Your task to perform on an android device: open app "Spotify: Music and Podcasts" (install if not already installed) Image 0: 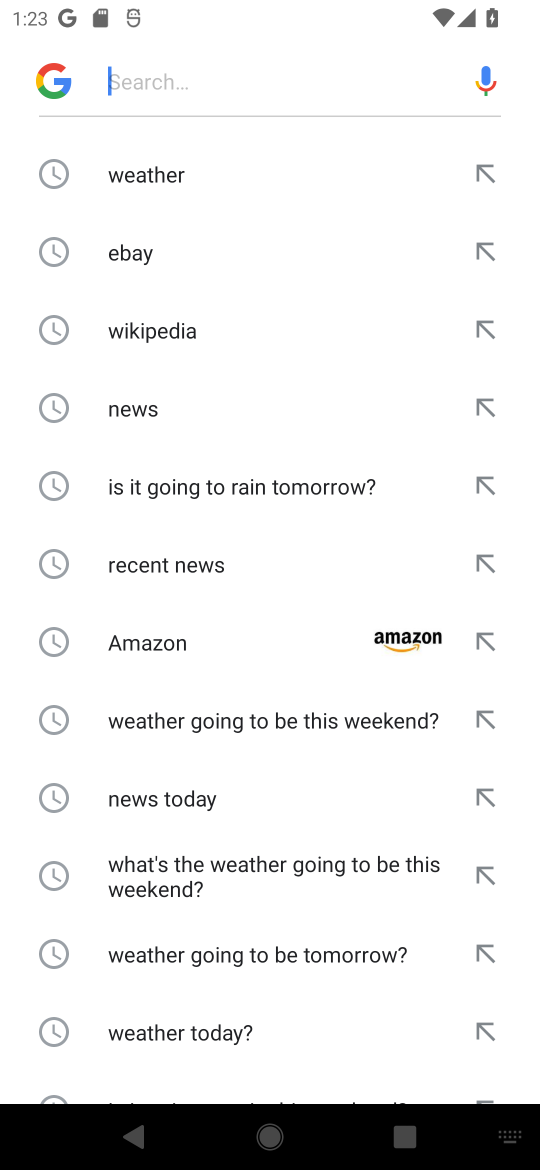
Step 0: press back button
Your task to perform on an android device: open app "Spotify: Music and Podcasts" (install if not already installed) Image 1: 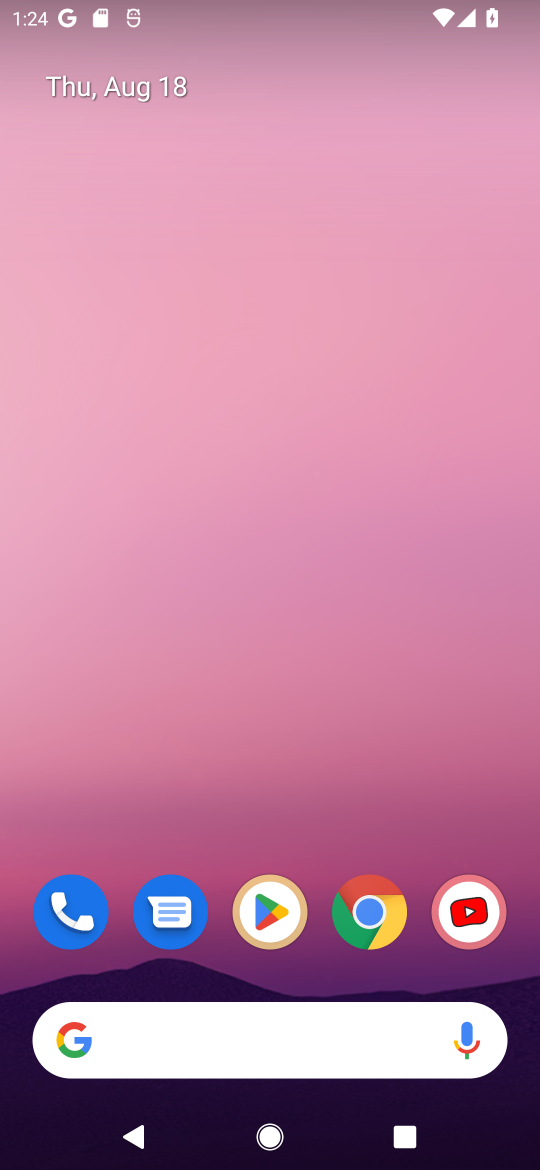
Step 1: click (273, 908)
Your task to perform on an android device: open app "Spotify: Music and Podcasts" (install if not already installed) Image 2: 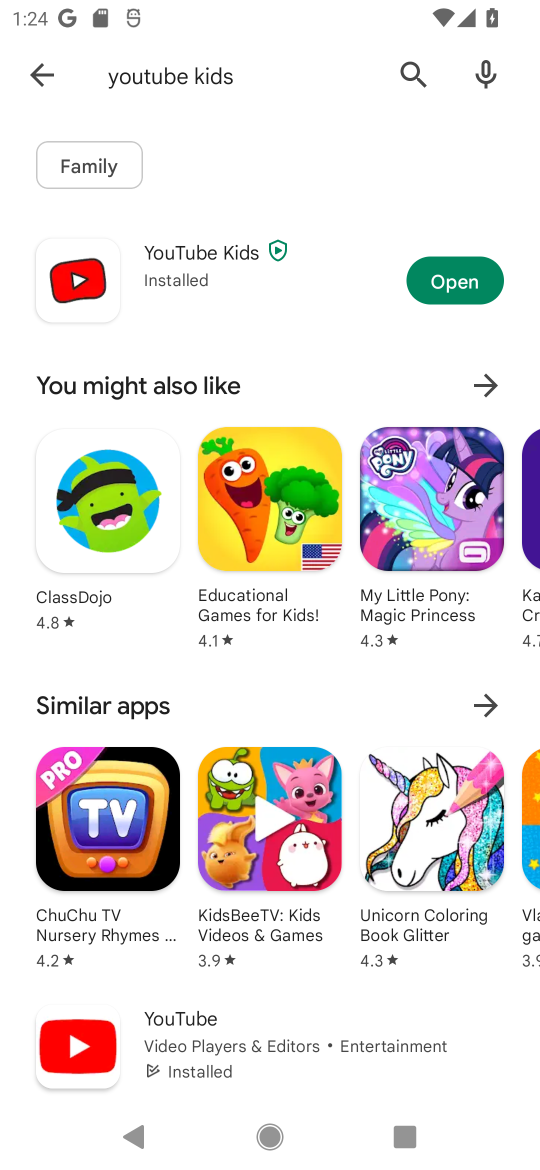
Step 2: click (411, 62)
Your task to perform on an android device: open app "Spotify: Music and Podcasts" (install if not already installed) Image 3: 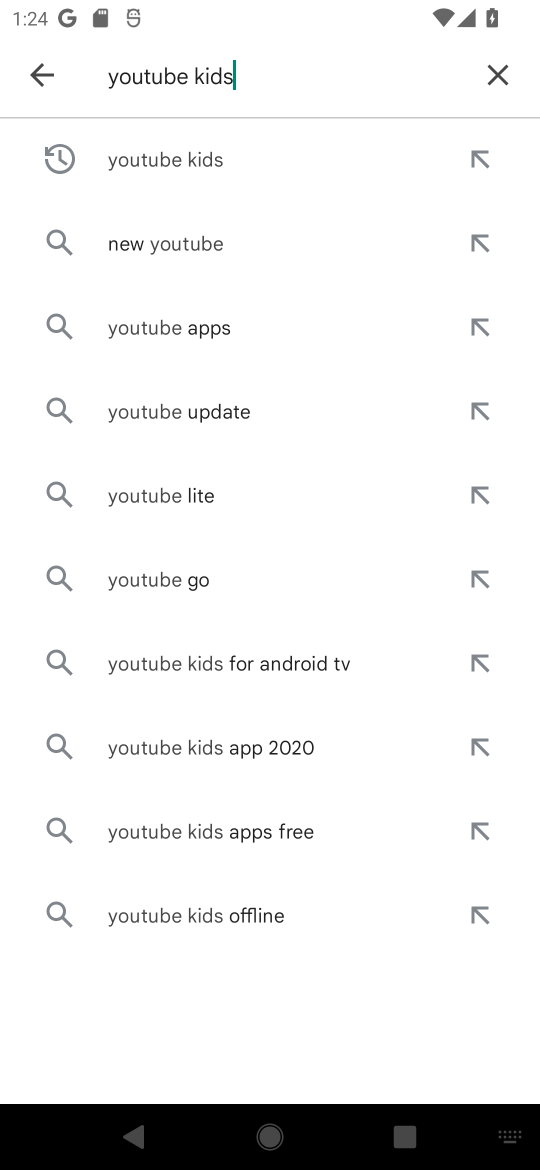
Step 3: click (496, 79)
Your task to perform on an android device: open app "Spotify: Music and Podcasts" (install if not already installed) Image 4: 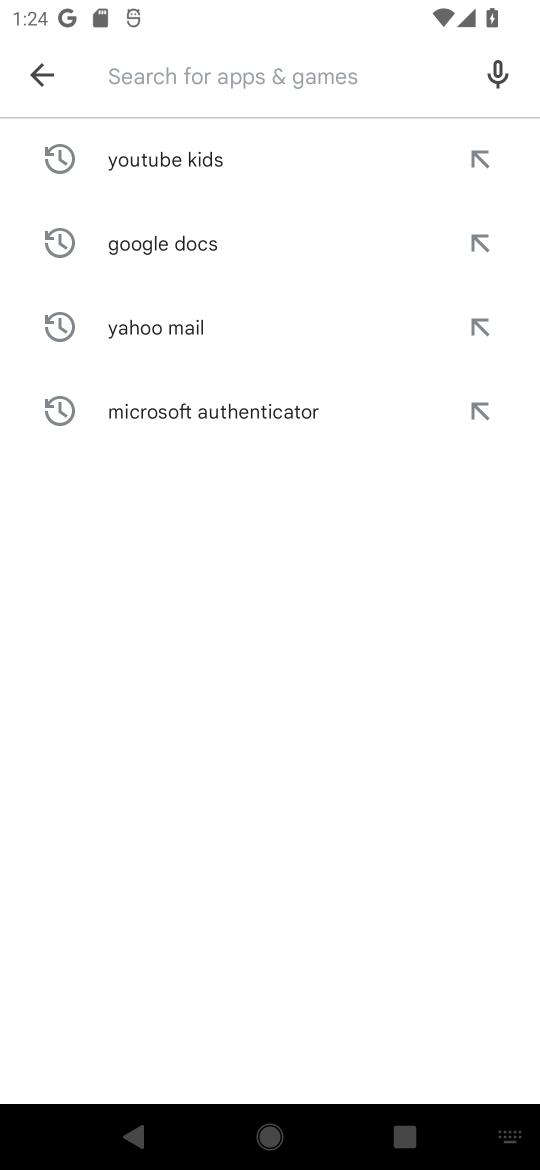
Step 4: click (284, 79)
Your task to perform on an android device: open app "Spotify: Music and Podcasts" (install if not already installed) Image 5: 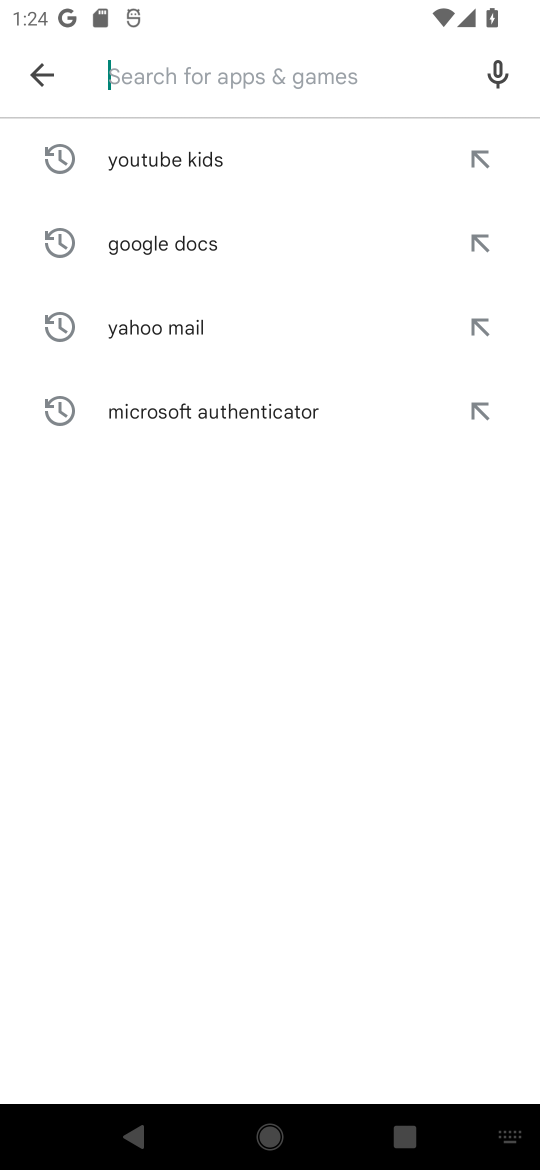
Step 5: type "spotify"
Your task to perform on an android device: open app "Spotify: Music and Podcasts" (install if not already installed) Image 6: 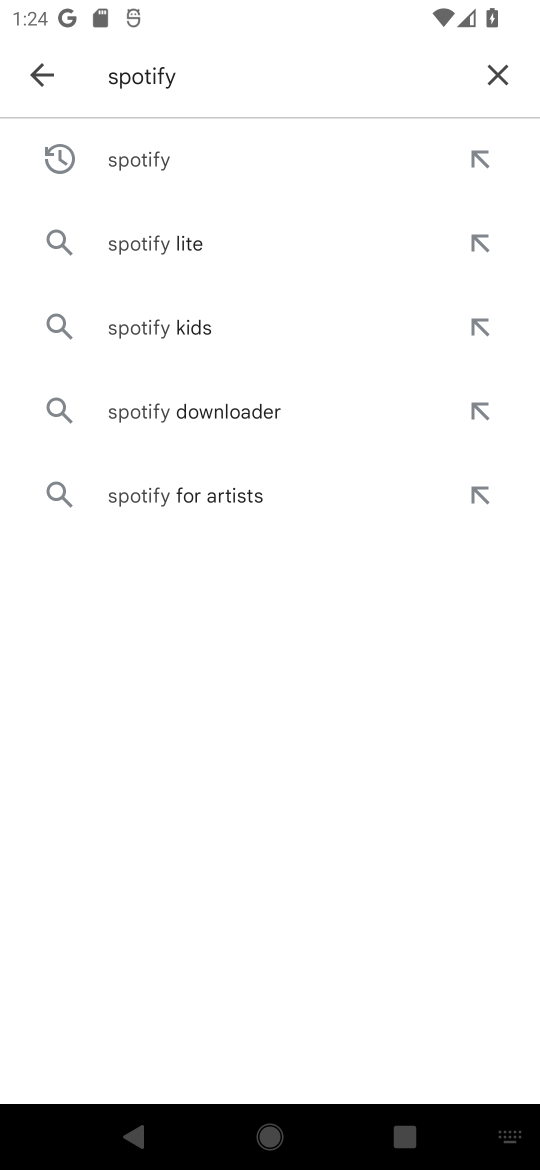
Step 6: click (165, 147)
Your task to perform on an android device: open app "Spotify: Music and Podcasts" (install if not already installed) Image 7: 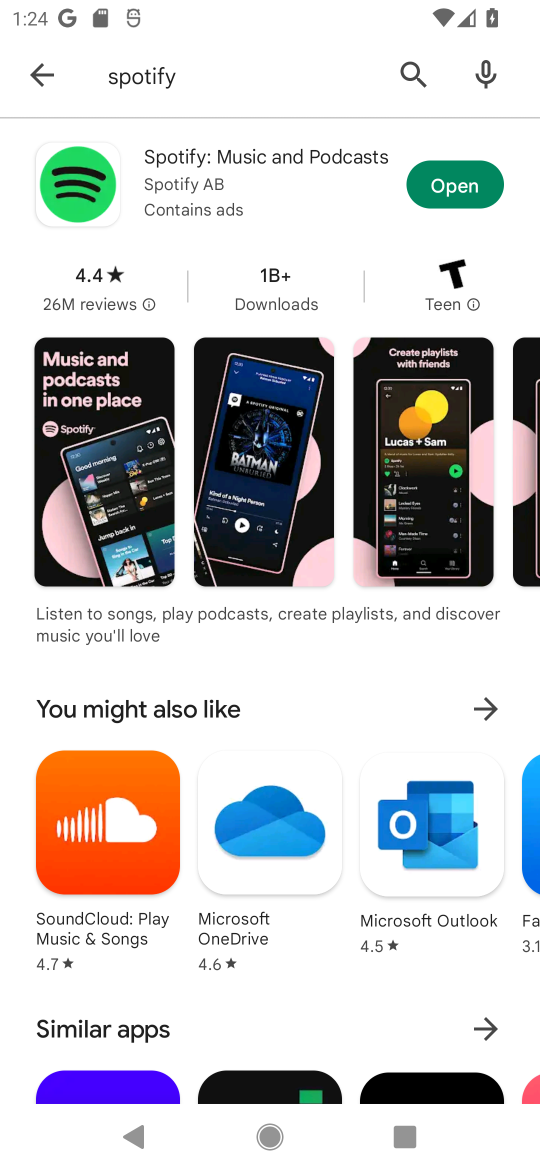
Step 7: click (454, 174)
Your task to perform on an android device: open app "Spotify: Music and Podcasts" (install if not already installed) Image 8: 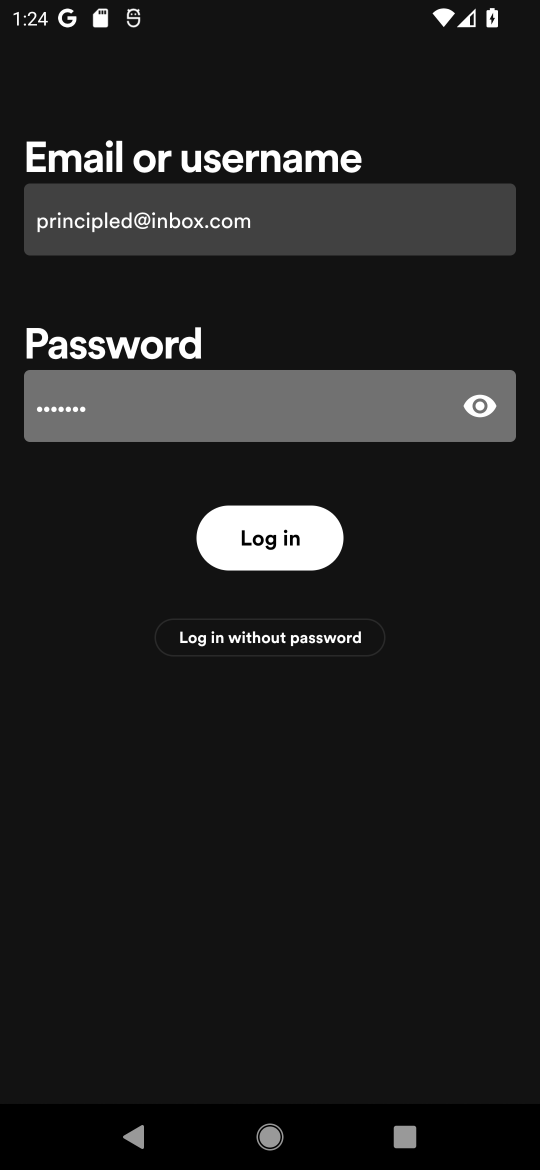
Step 8: task complete